Your task to perform on an android device: Open Google Chrome Image 0: 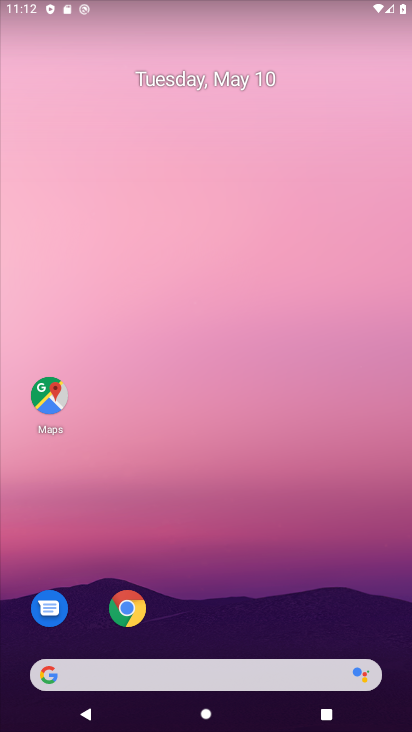
Step 0: click (131, 612)
Your task to perform on an android device: Open Google Chrome Image 1: 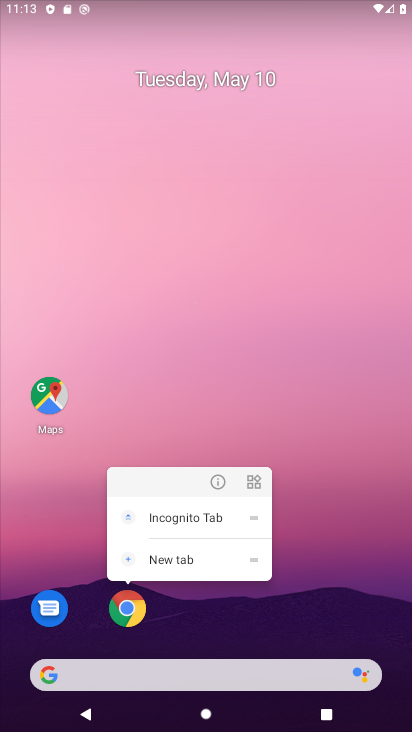
Step 1: click (151, 598)
Your task to perform on an android device: Open Google Chrome Image 2: 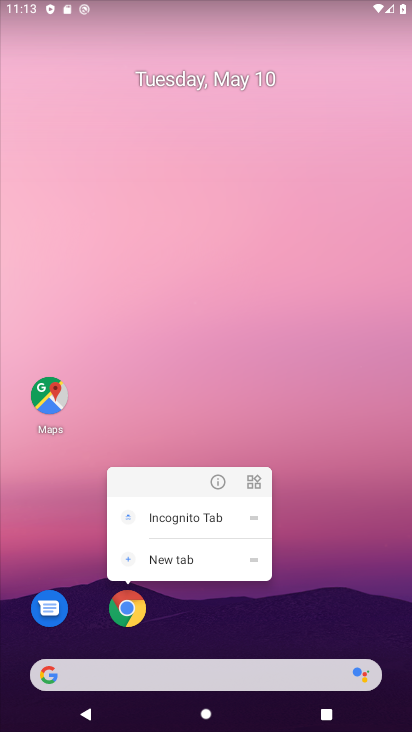
Step 2: drag from (244, 620) to (255, 61)
Your task to perform on an android device: Open Google Chrome Image 3: 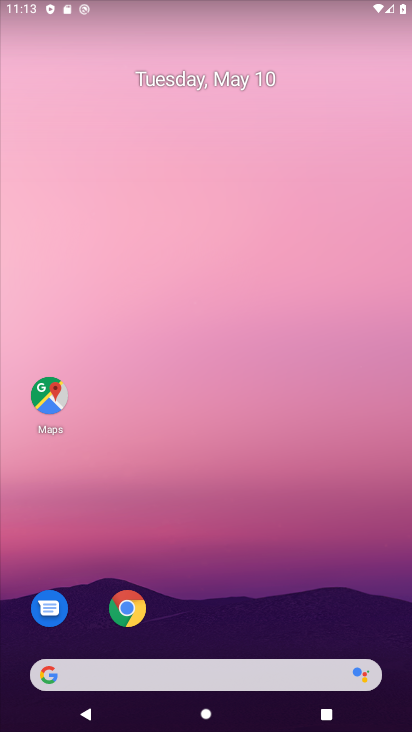
Step 3: drag from (271, 558) to (272, 37)
Your task to perform on an android device: Open Google Chrome Image 4: 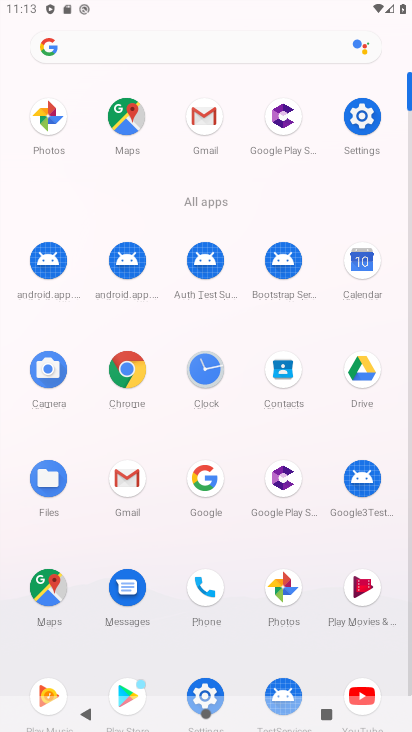
Step 4: click (122, 365)
Your task to perform on an android device: Open Google Chrome Image 5: 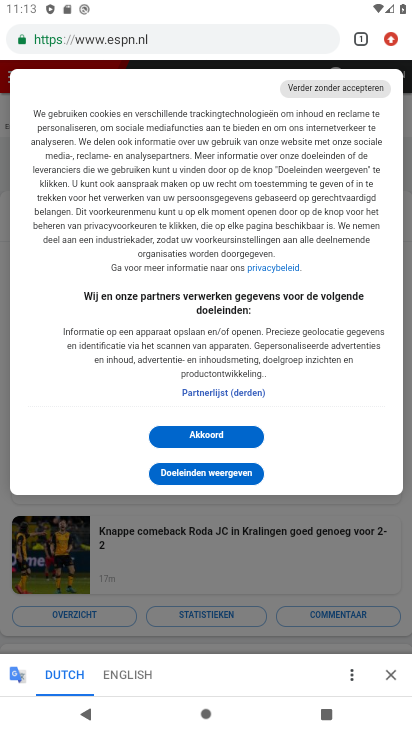
Step 5: task complete